Your task to perform on an android device: add a contact Image 0: 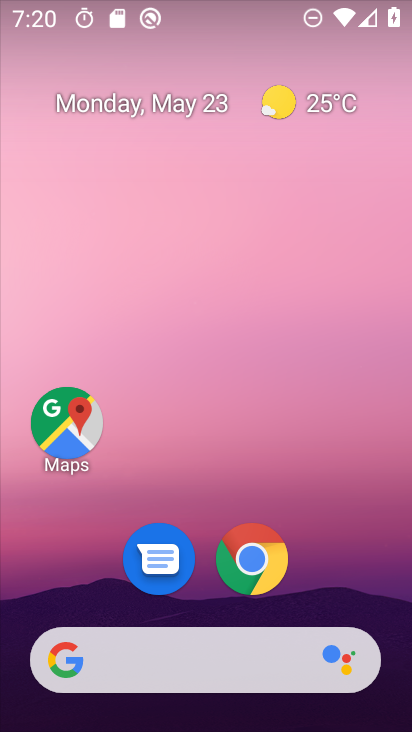
Step 0: drag from (403, 639) to (235, 7)
Your task to perform on an android device: add a contact Image 1: 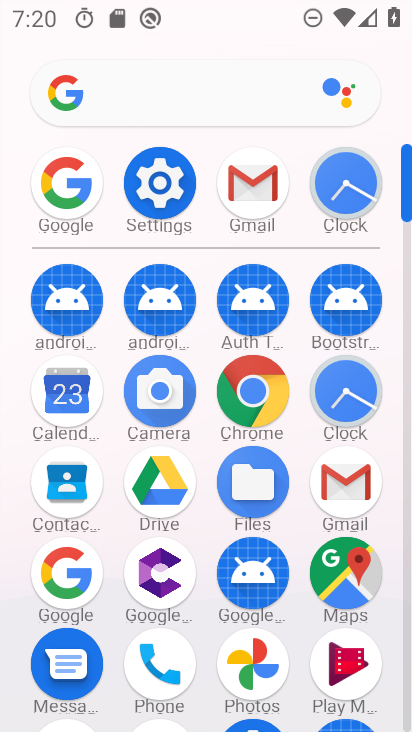
Step 1: click (62, 494)
Your task to perform on an android device: add a contact Image 2: 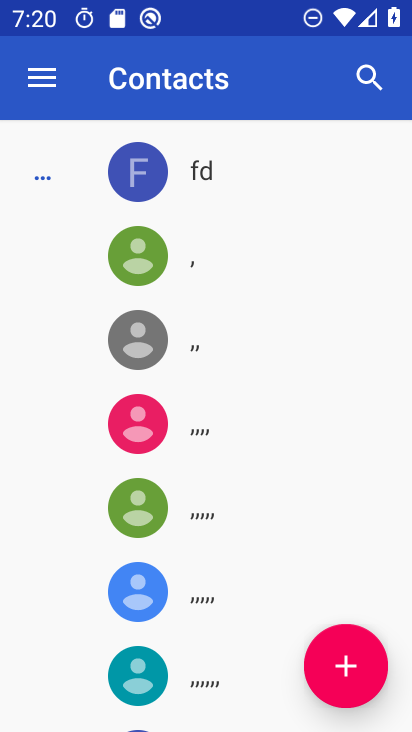
Step 2: click (345, 660)
Your task to perform on an android device: add a contact Image 3: 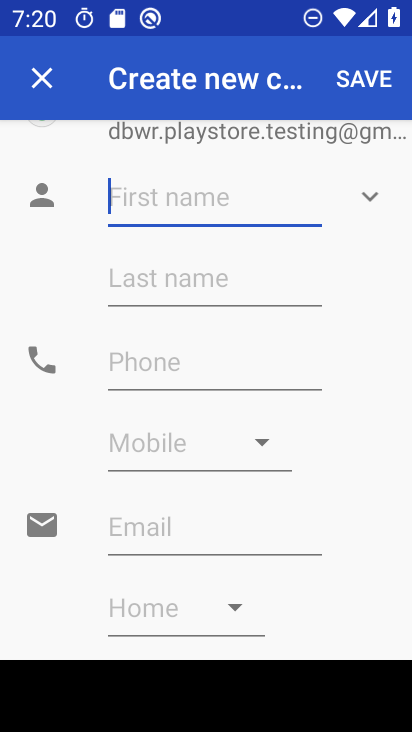
Step 3: type "humo"
Your task to perform on an android device: add a contact Image 4: 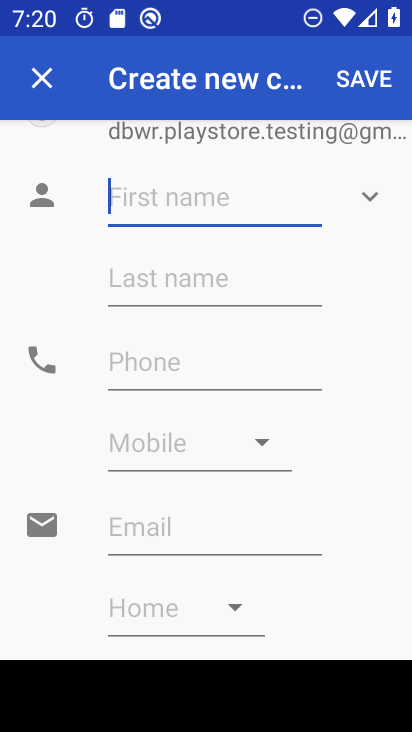
Step 4: click (366, 75)
Your task to perform on an android device: add a contact Image 5: 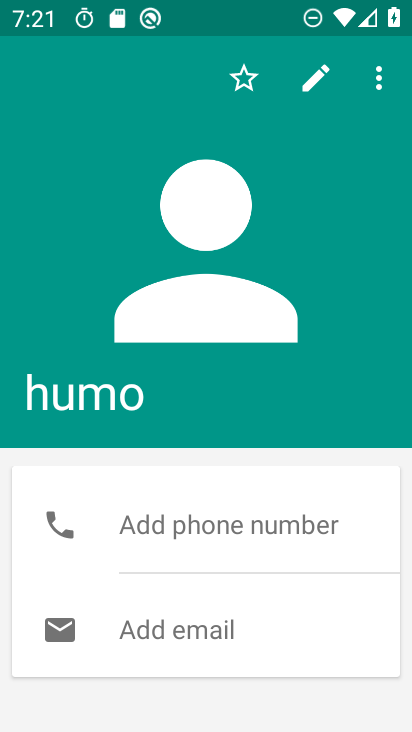
Step 5: task complete